Your task to perform on an android device: turn off notifications settings in the gmail app Image 0: 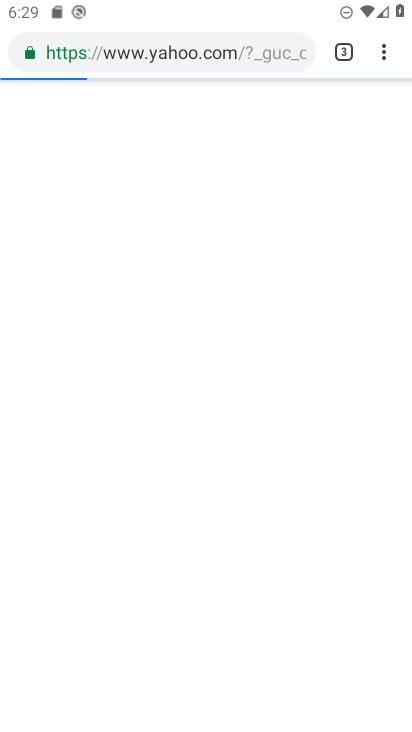
Step 0: press home button
Your task to perform on an android device: turn off notifications settings in the gmail app Image 1: 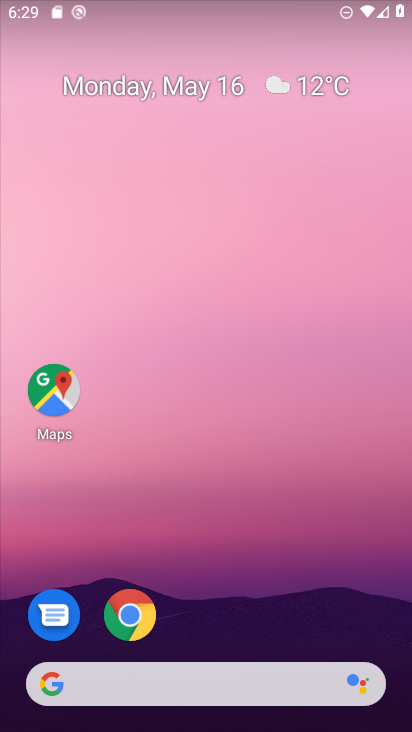
Step 1: drag from (248, 620) to (299, 77)
Your task to perform on an android device: turn off notifications settings in the gmail app Image 2: 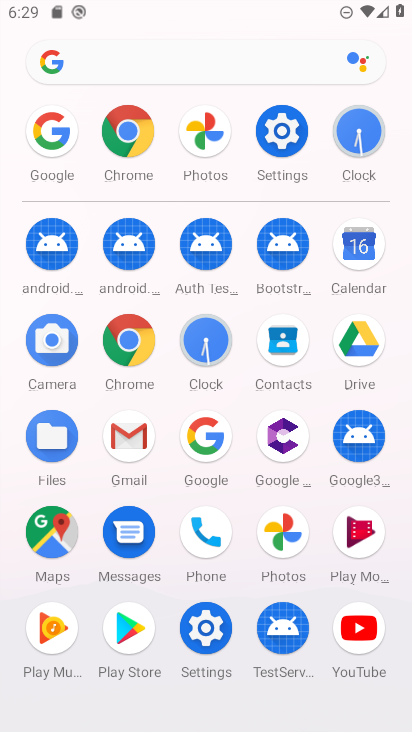
Step 2: click (95, 444)
Your task to perform on an android device: turn off notifications settings in the gmail app Image 3: 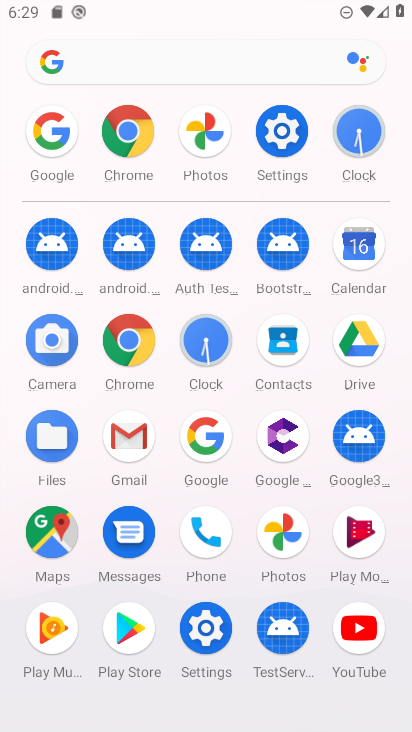
Step 3: click (109, 446)
Your task to perform on an android device: turn off notifications settings in the gmail app Image 4: 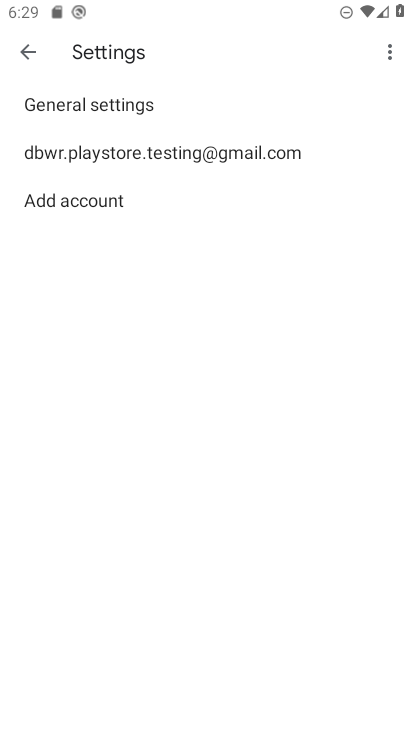
Step 4: click (127, 146)
Your task to perform on an android device: turn off notifications settings in the gmail app Image 5: 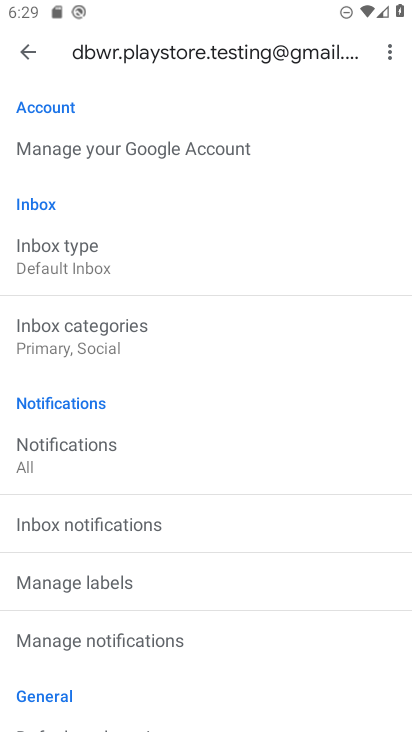
Step 5: click (54, 457)
Your task to perform on an android device: turn off notifications settings in the gmail app Image 6: 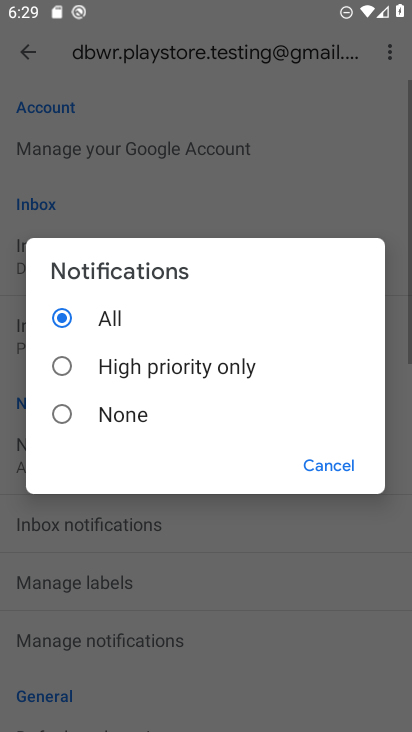
Step 6: click (74, 415)
Your task to perform on an android device: turn off notifications settings in the gmail app Image 7: 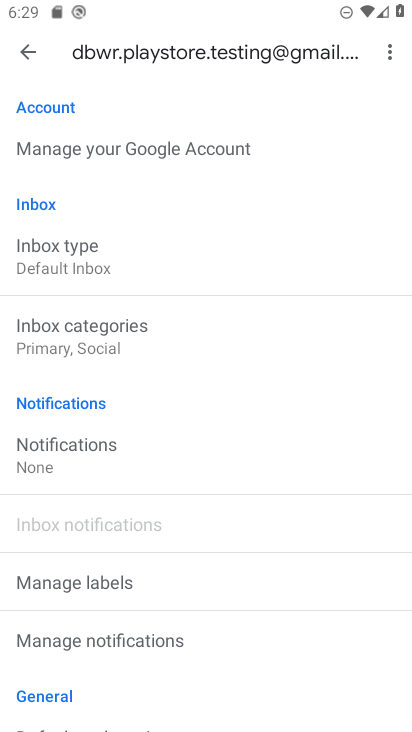
Step 7: task complete